Your task to perform on an android device: toggle notifications settings in the gmail app Image 0: 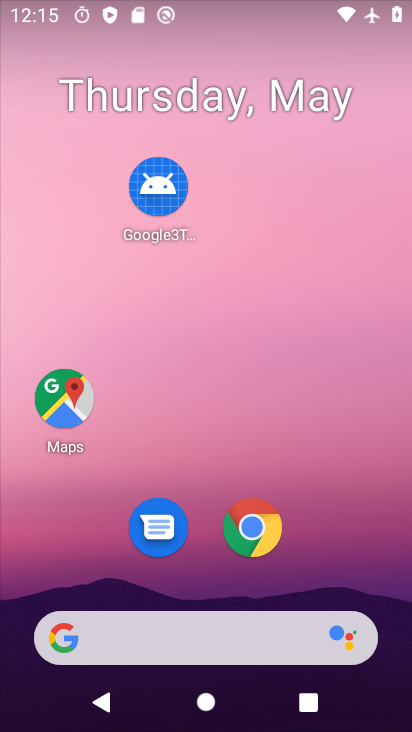
Step 0: drag from (209, 586) to (203, 95)
Your task to perform on an android device: toggle notifications settings in the gmail app Image 1: 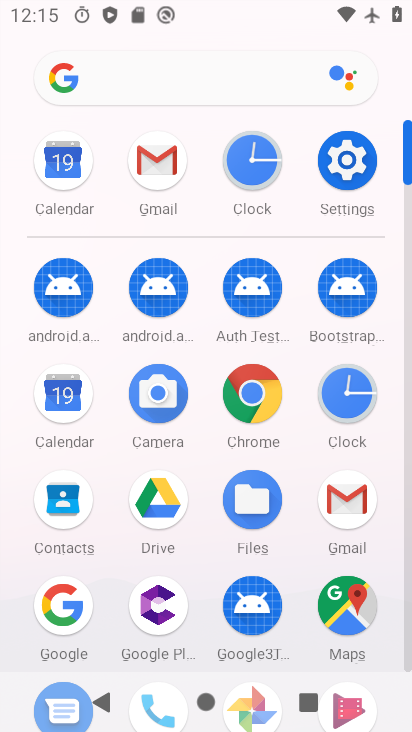
Step 1: click (340, 496)
Your task to perform on an android device: toggle notifications settings in the gmail app Image 2: 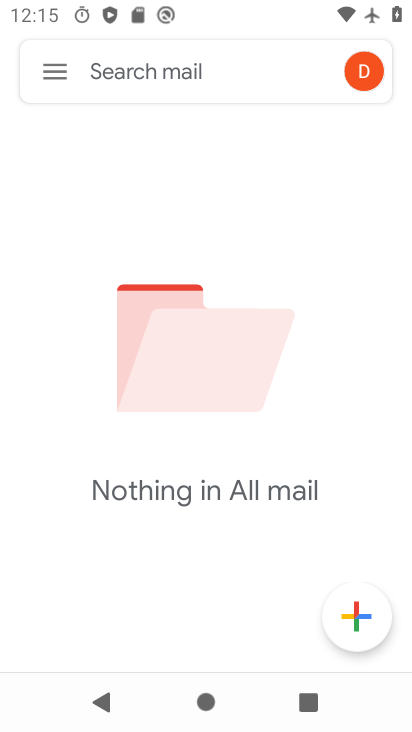
Step 2: click (44, 60)
Your task to perform on an android device: toggle notifications settings in the gmail app Image 3: 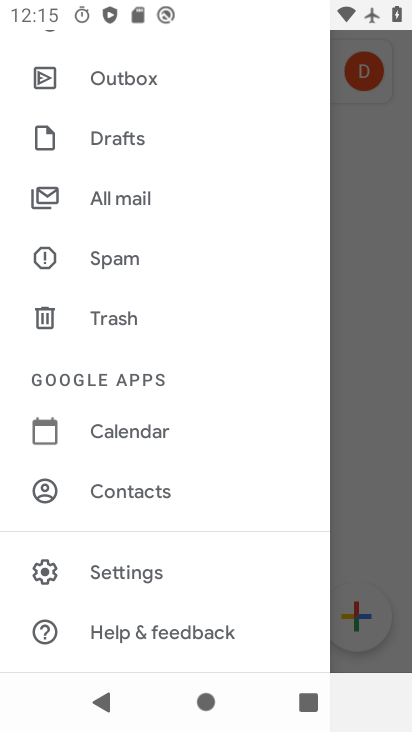
Step 3: click (117, 575)
Your task to perform on an android device: toggle notifications settings in the gmail app Image 4: 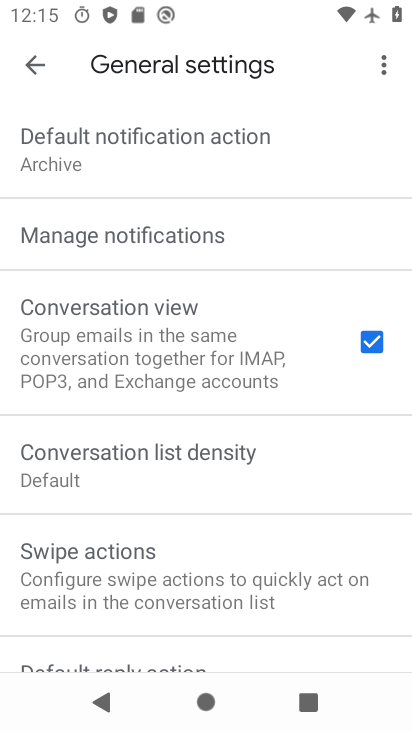
Step 4: click (240, 230)
Your task to perform on an android device: toggle notifications settings in the gmail app Image 5: 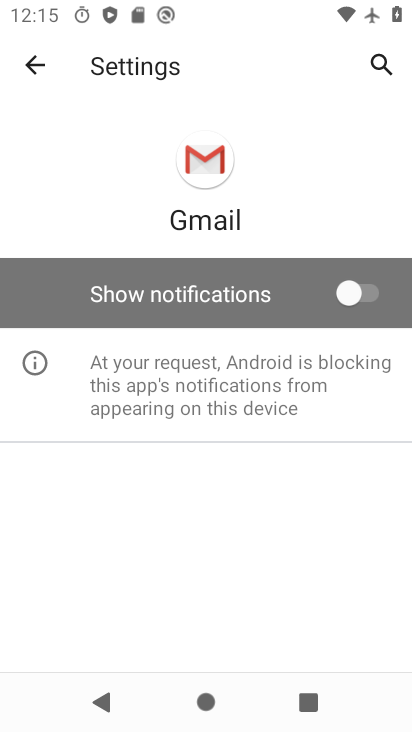
Step 5: click (358, 281)
Your task to perform on an android device: toggle notifications settings in the gmail app Image 6: 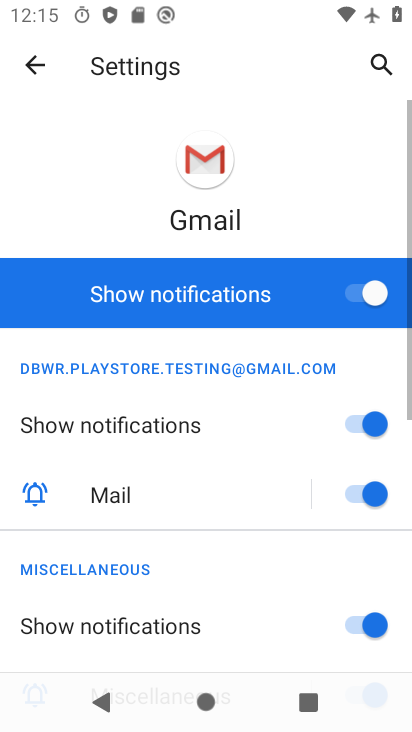
Step 6: task complete